Your task to perform on an android device: turn on notifications settings in the gmail app Image 0: 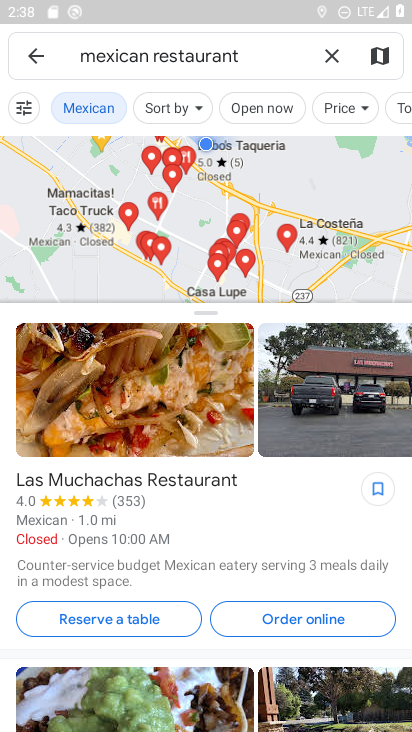
Step 0: drag from (258, 556) to (315, 198)
Your task to perform on an android device: turn on notifications settings in the gmail app Image 1: 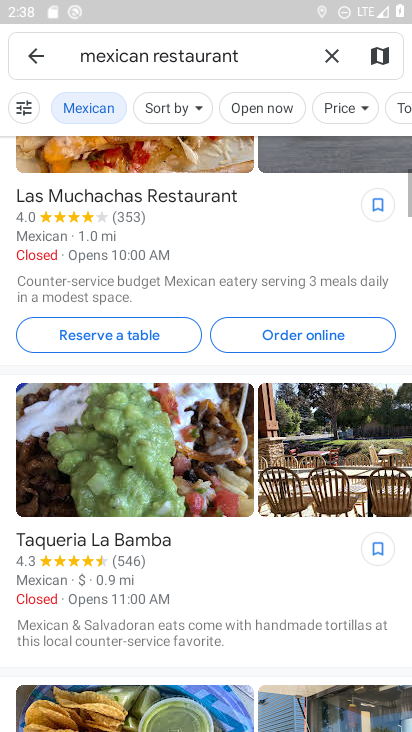
Step 1: drag from (280, 282) to (350, 706)
Your task to perform on an android device: turn on notifications settings in the gmail app Image 2: 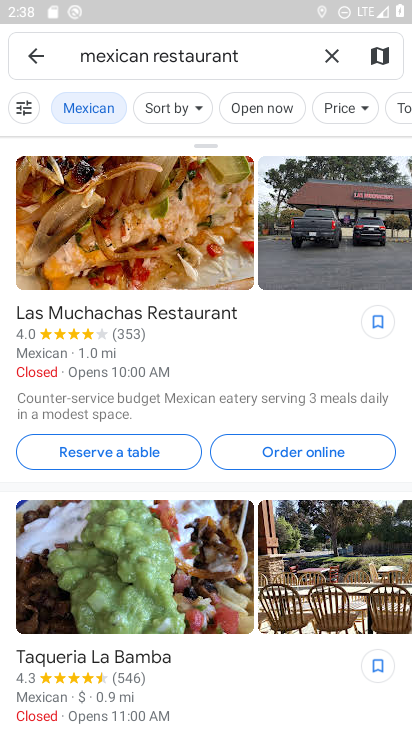
Step 2: press home button
Your task to perform on an android device: turn on notifications settings in the gmail app Image 3: 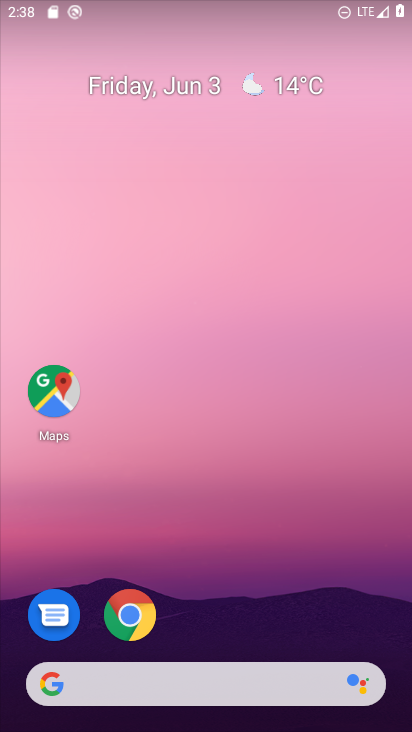
Step 3: drag from (209, 612) to (206, 218)
Your task to perform on an android device: turn on notifications settings in the gmail app Image 4: 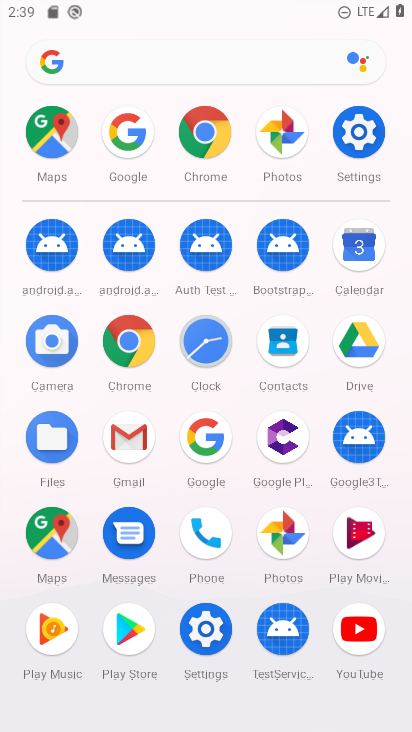
Step 4: click (109, 456)
Your task to perform on an android device: turn on notifications settings in the gmail app Image 5: 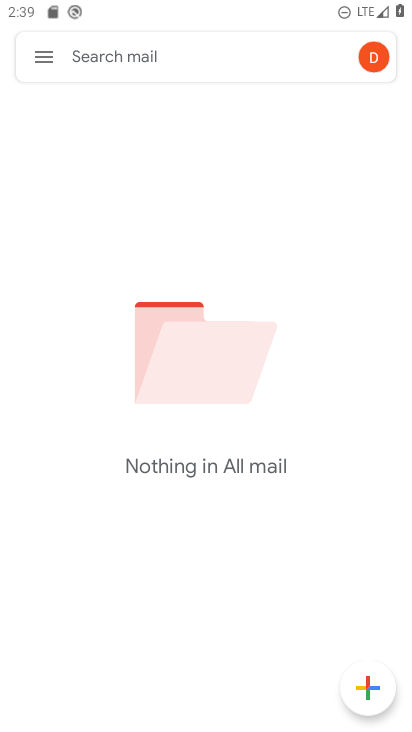
Step 5: drag from (121, 635) to (182, 222)
Your task to perform on an android device: turn on notifications settings in the gmail app Image 6: 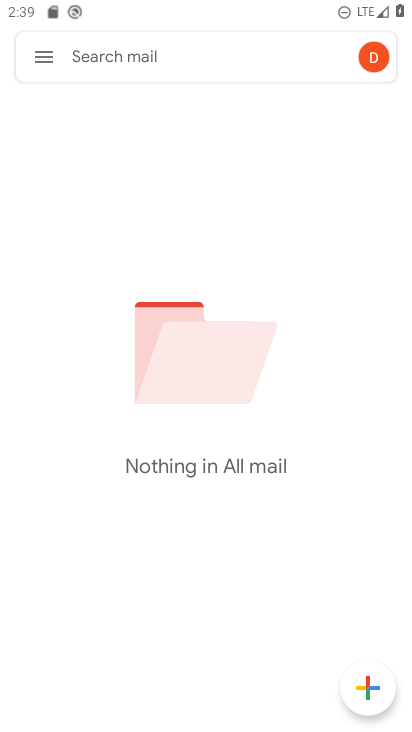
Step 6: click (41, 49)
Your task to perform on an android device: turn on notifications settings in the gmail app Image 7: 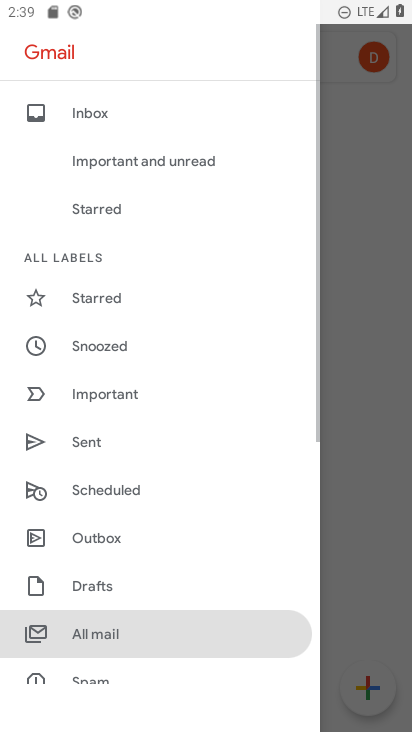
Step 7: drag from (132, 582) to (179, 72)
Your task to perform on an android device: turn on notifications settings in the gmail app Image 8: 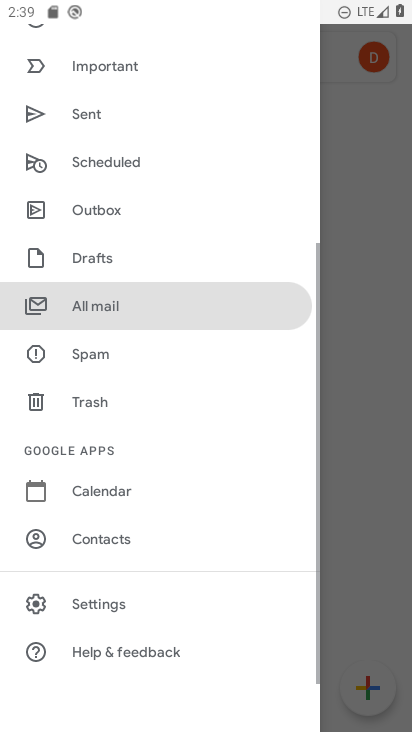
Step 8: drag from (165, 120) to (105, 731)
Your task to perform on an android device: turn on notifications settings in the gmail app Image 9: 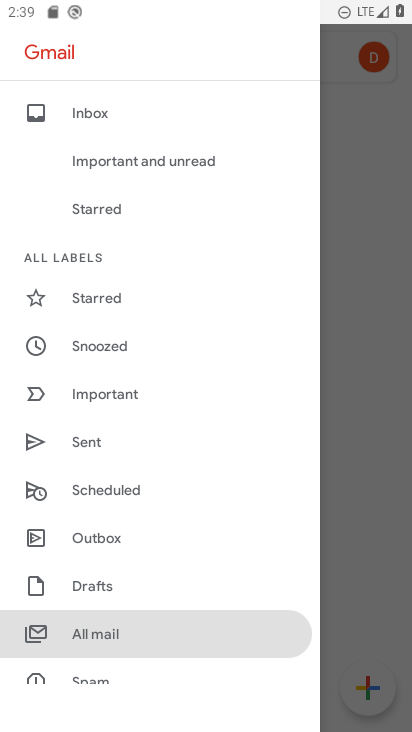
Step 9: drag from (128, 561) to (212, 63)
Your task to perform on an android device: turn on notifications settings in the gmail app Image 10: 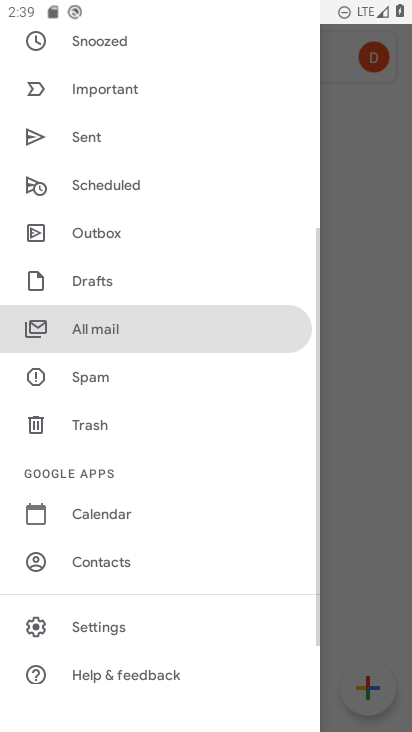
Step 10: click (104, 616)
Your task to perform on an android device: turn on notifications settings in the gmail app Image 11: 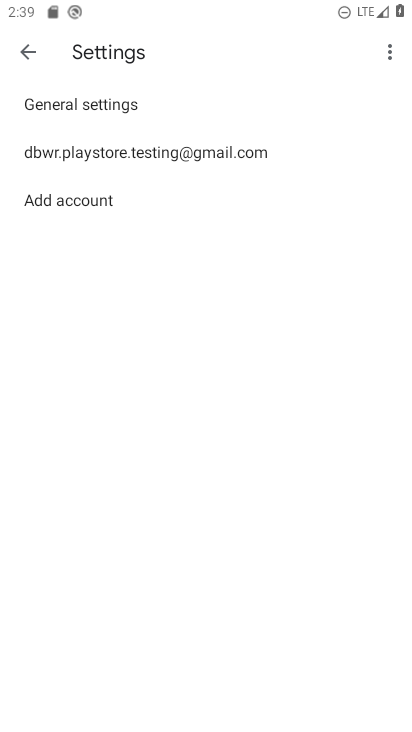
Step 11: drag from (147, 545) to (217, 79)
Your task to perform on an android device: turn on notifications settings in the gmail app Image 12: 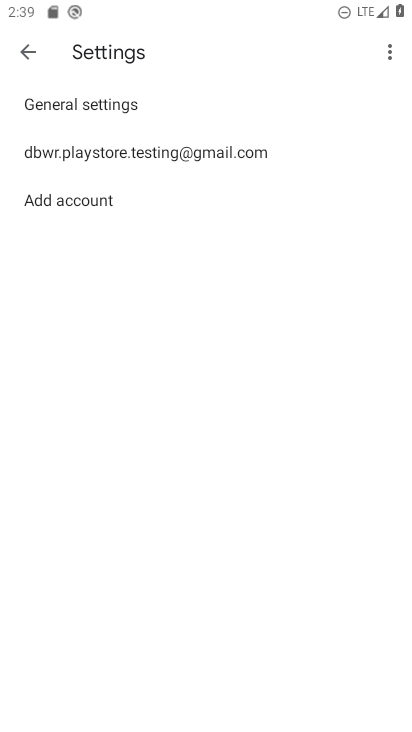
Step 12: click (122, 177)
Your task to perform on an android device: turn on notifications settings in the gmail app Image 13: 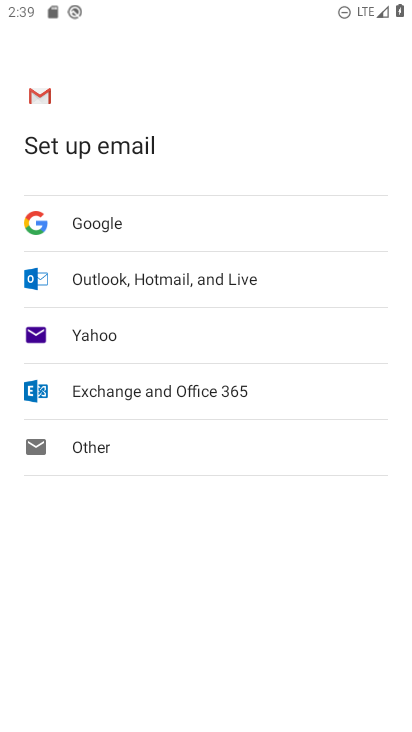
Step 13: press back button
Your task to perform on an android device: turn on notifications settings in the gmail app Image 14: 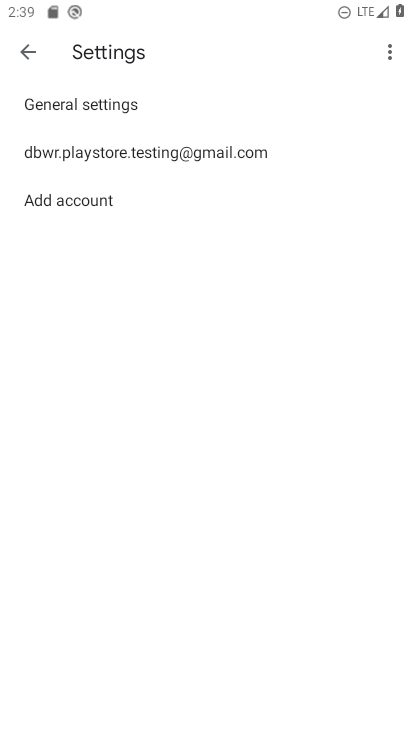
Step 14: click (207, 159)
Your task to perform on an android device: turn on notifications settings in the gmail app Image 15: 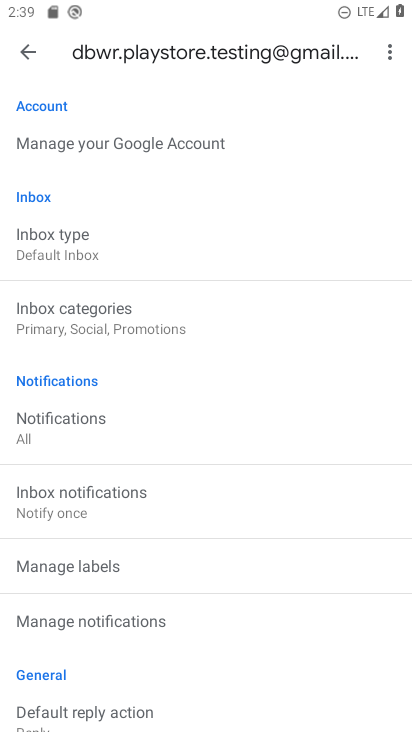
Step 15: click (109, 638)
Your task to perform on an android device: turn on notifications settings in the gmail app Image 16: 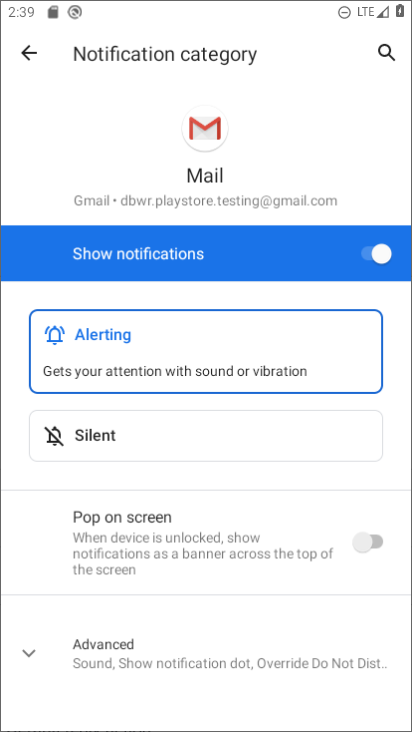
Step 16: click (206, 189)
Your task to perform on an android device: turn on notifications settings in the gmail app Image 17: 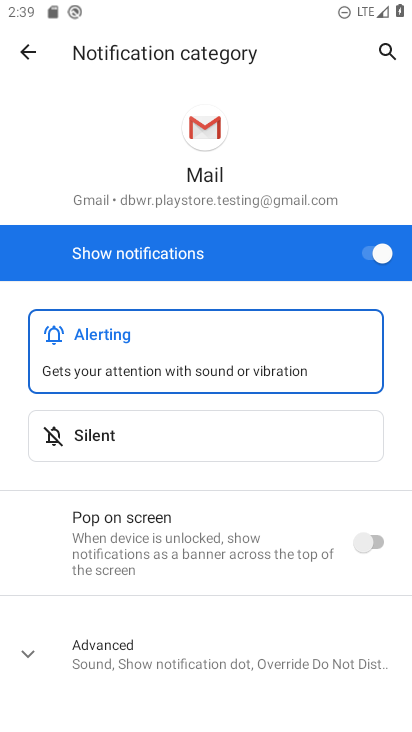
Step 17: task complete